Your task to perform on an android device: What is the news today? Image 0: 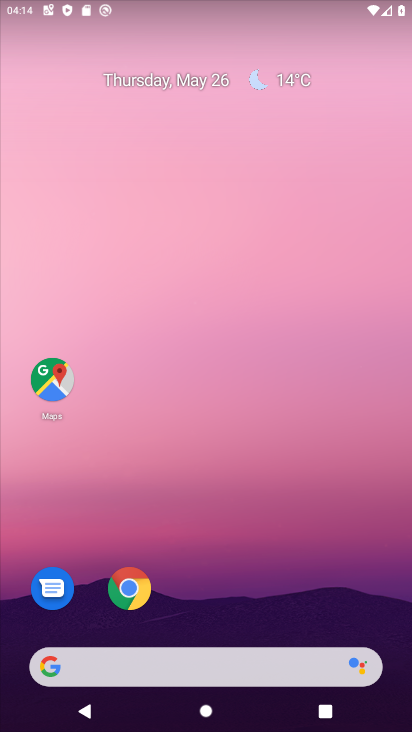
Step 0: drag from (291, 596) to (312, 46)
Your task to perform on an android device: What is the news today? Image 1: 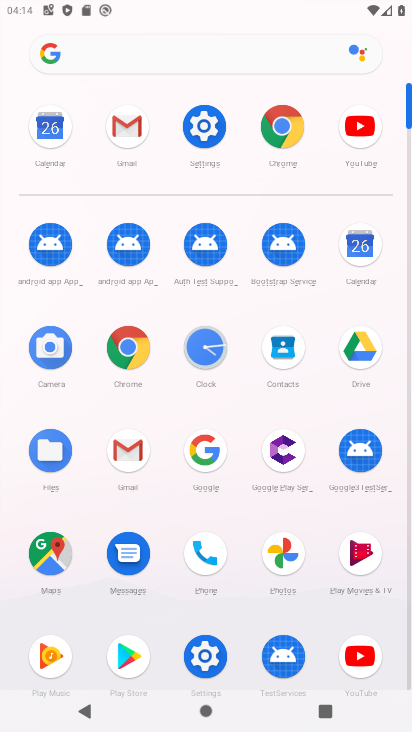
Step 1: click (135, 63)
Your task to perform on an android device: What is the news today? Image 2: 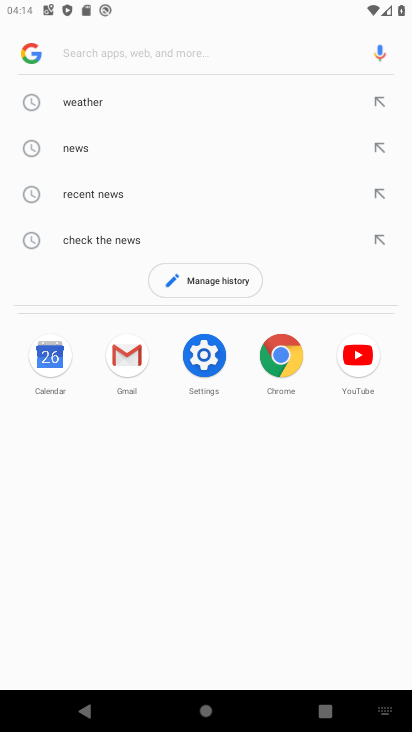
Step 2: click (146, 89)
Your task to perform on an android device: What is the news today? Image 3: 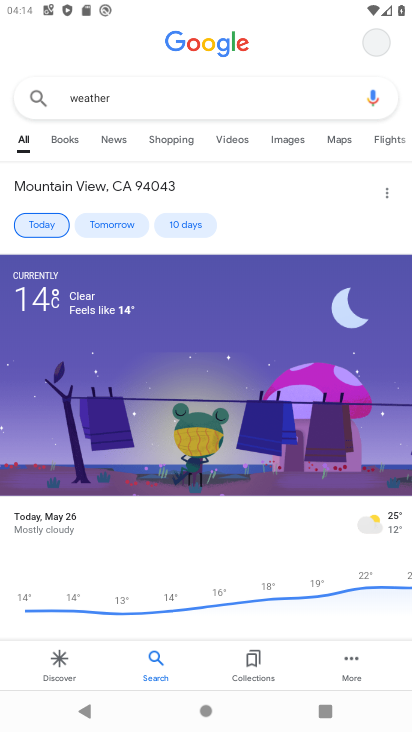
Step 3: click (95, 705)
Your task to perform on an android device: What is the news today? Image 4: 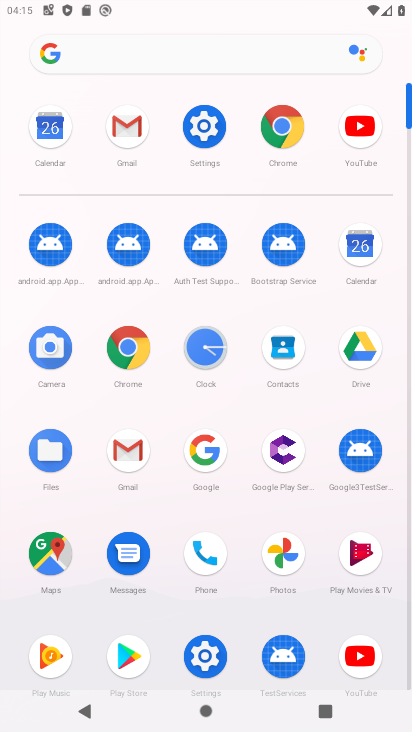
Step 4: click (182, 49)
Your task to perform on an android device: What is the news today? Image 5: 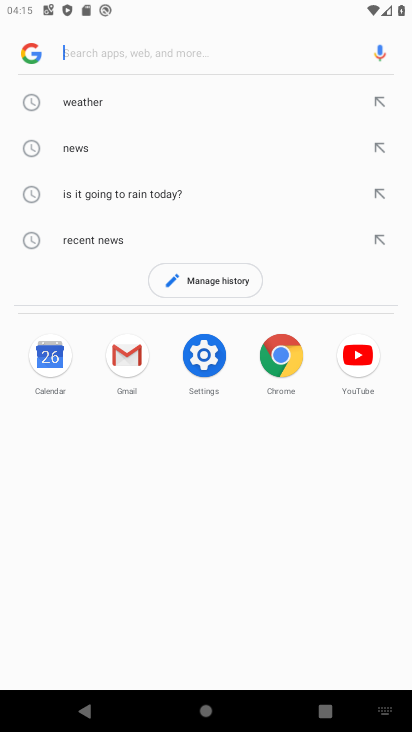
Step 5: click (117, 156)
Your task to perform on an android device: What is the news today? Image 6: 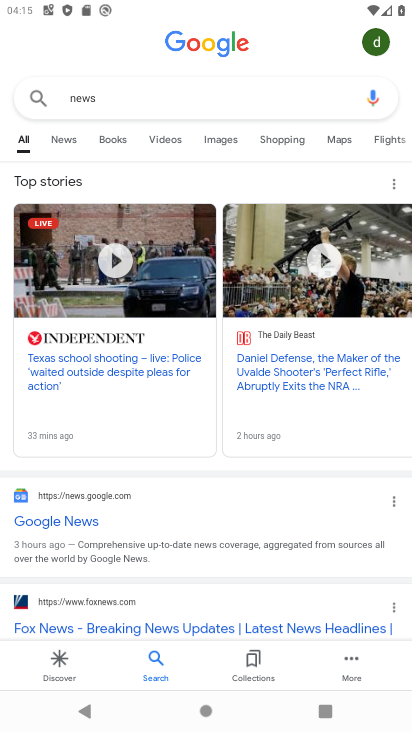
Step 6: task complete